Your task to perform on an android device: turn pop-ups on in chrome Image 0: 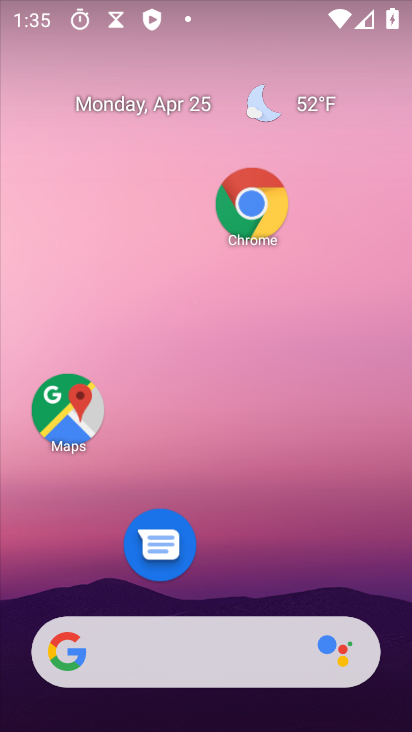
Step 0: drag from (316, 656) to (339, 235)
Your task to perform on an android device: turn pop-ups on in chrome Image 1: 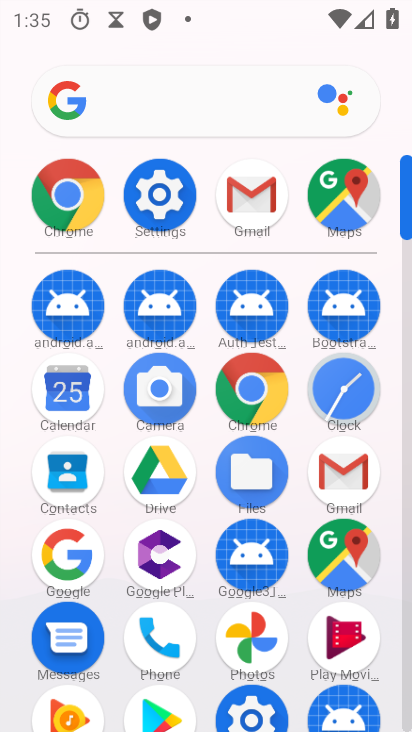
Step 1: click (57, 198)
Your task to perform on an android device: turn pop-ups on in chrome Image 2: 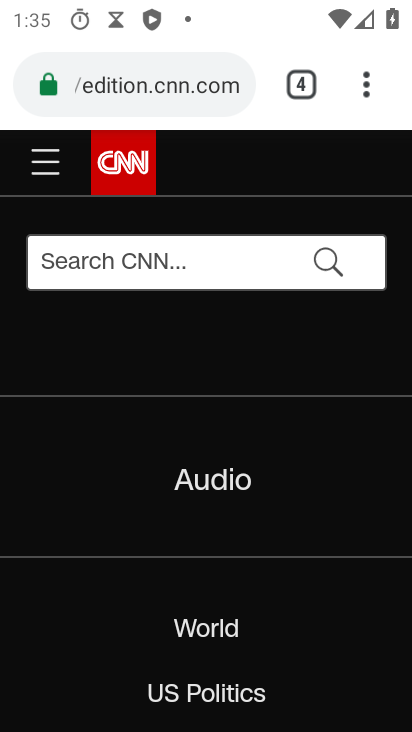
Step 2: click (360, 93)
Your task to perform on an android device: turn pop-ups on in chrome Image 3: 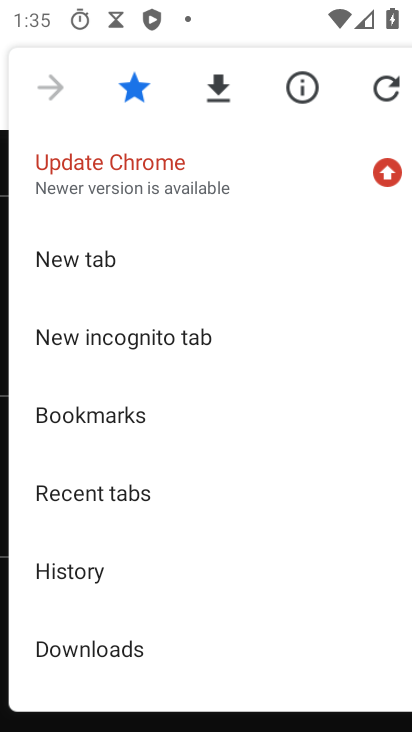
Step 3: drag from (147, 566) to (133, 232)
Your task to perform on an android device: turn pop-ups on in chrome Image 4: 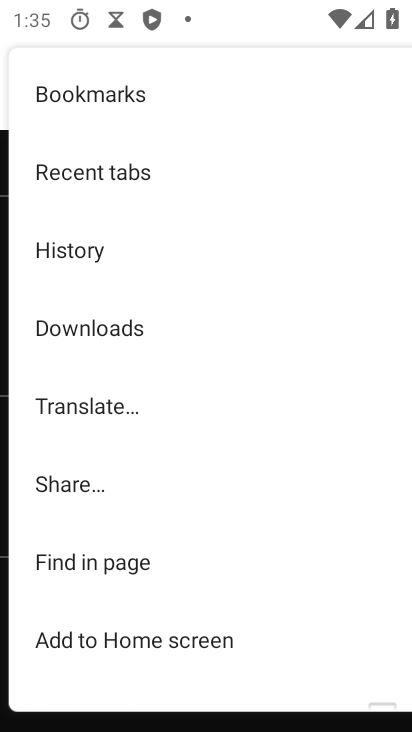
Step 4: drag from (151, 591) to (222, 426)
Your task to perform on an android device: turn pop-ups on in chrome Image 5: 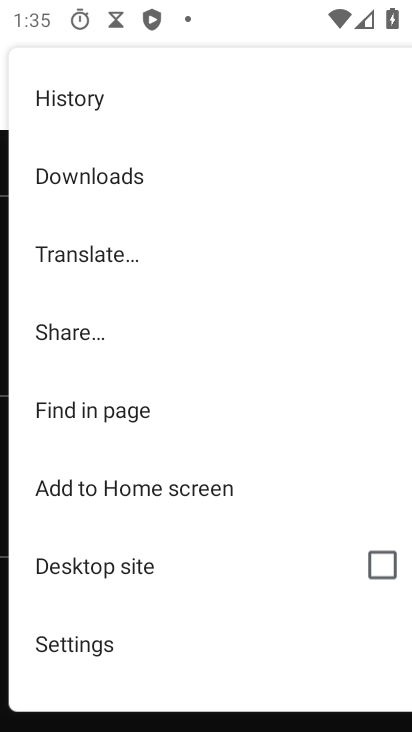
Step 5: click (85, 646)
Your task to perform on an android device: turn pop-ups on in chrome Image 6: 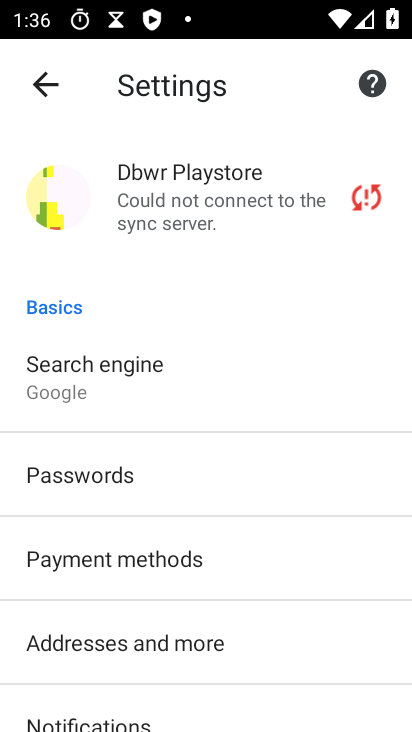
Step 6: drag from (151, 697) to (195, 217)
Your task to perform on an android device: turn pop-ups on in chrome Image 7: 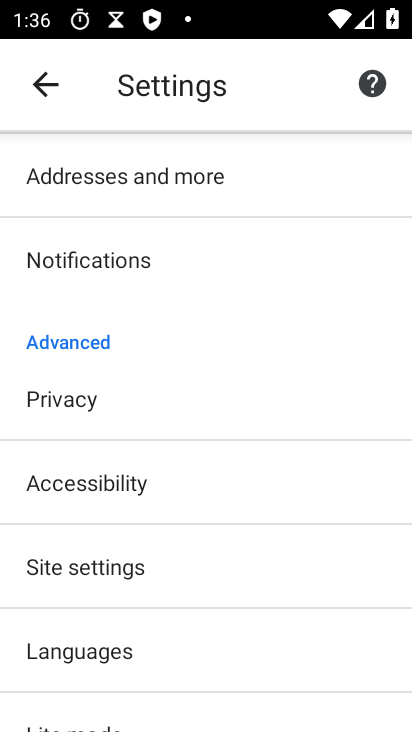
Step 7: click (131, 575)
Your task to perform on an android device: turn pop-ups on in chrome Image 8: 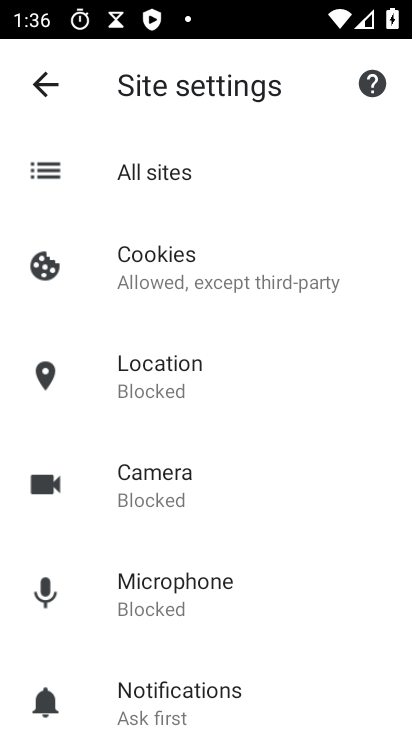
Step 8: drag from (206, 588) to (213, 298)
Your task to perform on an android device: turn pop-ups on in chrome Image 9: 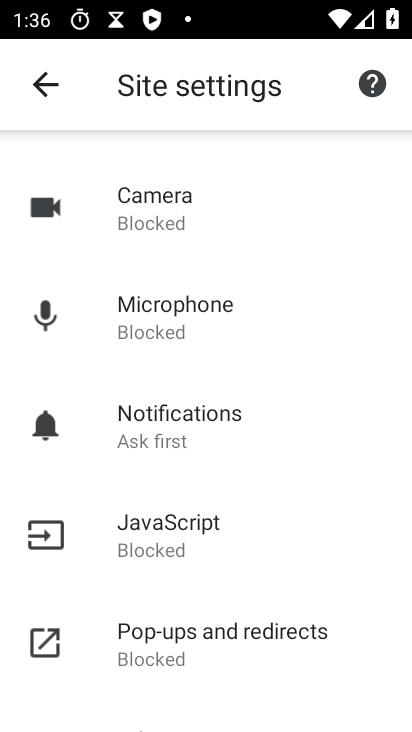
Step 9: click (193, 638)
Your task to perform on an android device: turn pop-ups on in chrome Image 10: 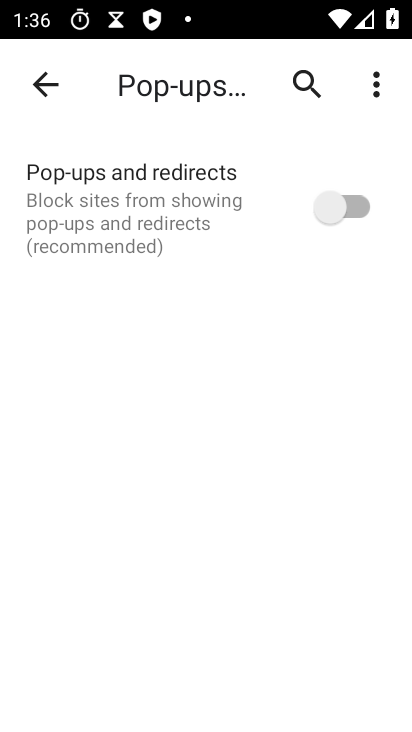
Step 10: click (286, 201)
Your task to perform on an android device: turn pop-ups on in chrome Image 11: 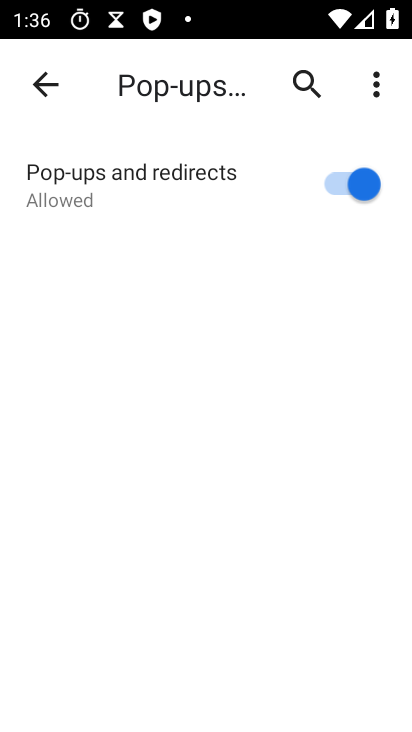
Step 11: task complete